Your task to perform on an android device: Open Chrome and go to the settings page Image 0: 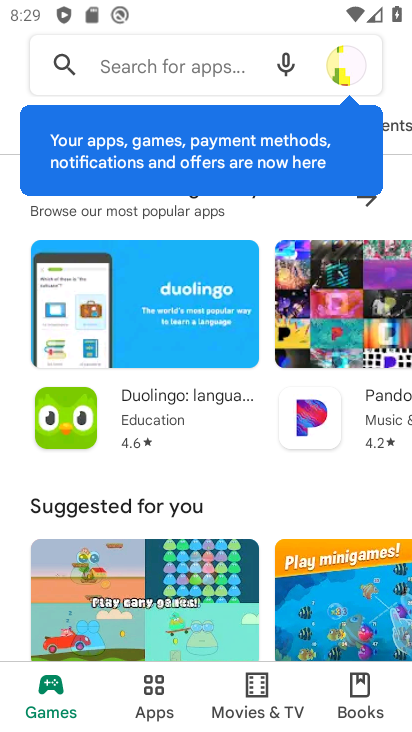
Step 0: press back button
Your task to perform on an android device: Open Chrome and go to the settings page Image 1: 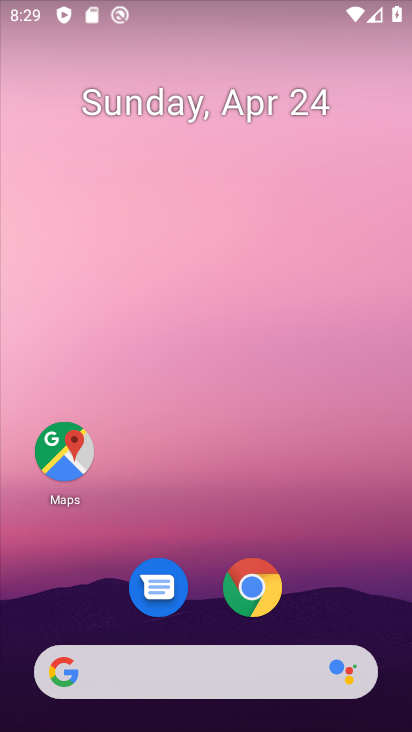
Step 1: click (237, 581)
Your task to perform on an android device: Open Chrome and go to the settings page Image 2: 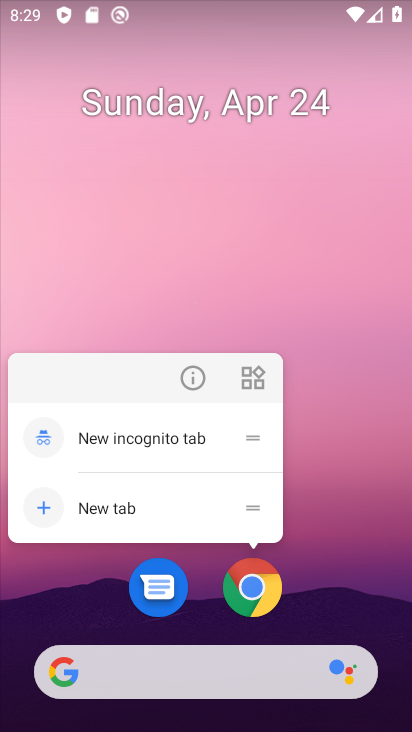
Step 2: click (259, 583)
Your task to perform on an android device: Open Chrome and go to the settings page Image 3: 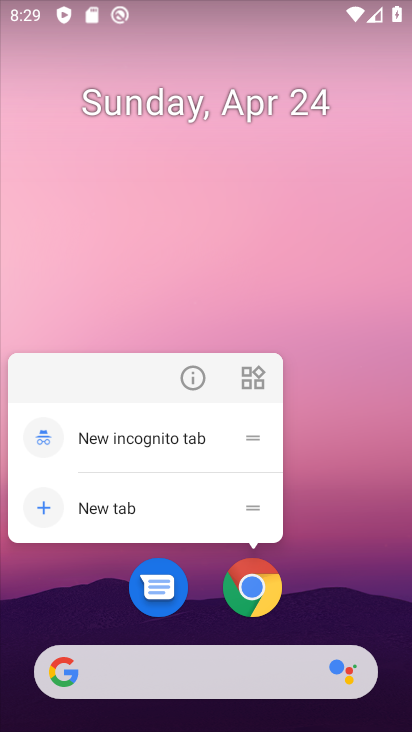
Step 3: click (254, 587)
Your task to perform on an android device: Open Chrome and go to the settings page Image 4: 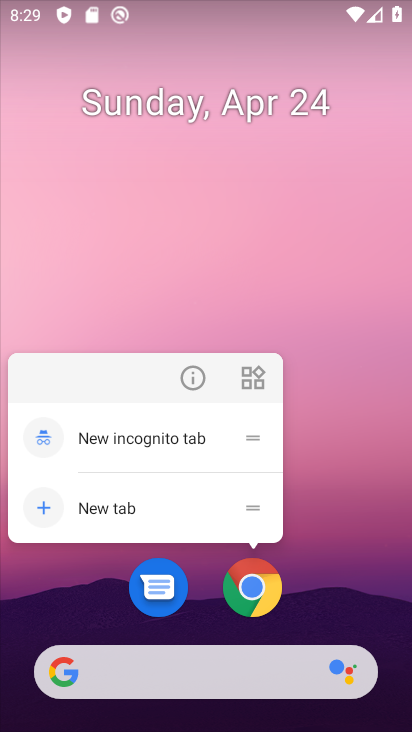
Step 4: click (254, 590)
Your task to perform on an android device: Open Chrome and go to the settings page Image 5: 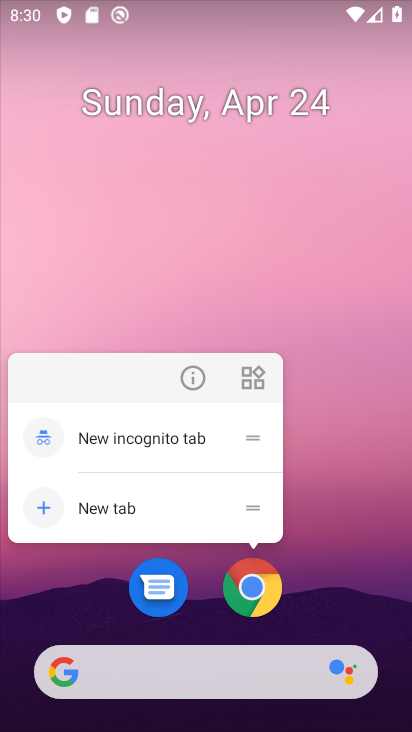
Step 5: click (253, 598)
Your task to perform on an android device: Open Chrome and go to the settings page Image 6: 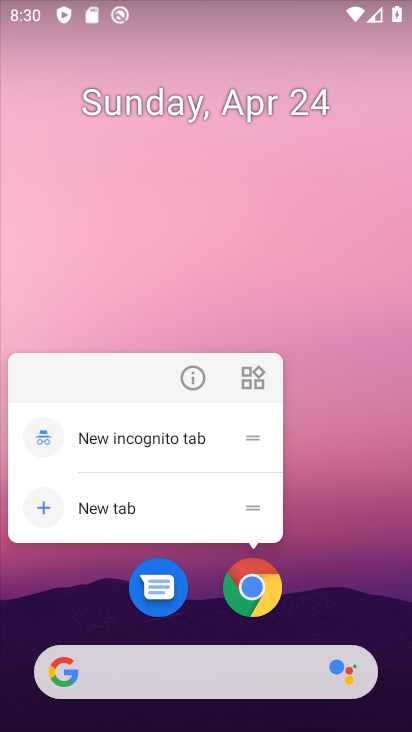
Step 6: click (255, 587)
Your task to perform on an android device: Open Chrome and go to the settings page Image 7: 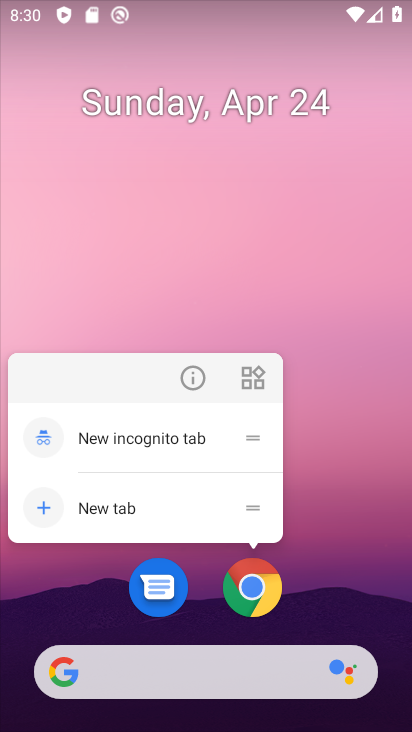
Step 7: click (245, 588)
Your task to perform on an android device: Open Chrome and go to the settings page Image 8: 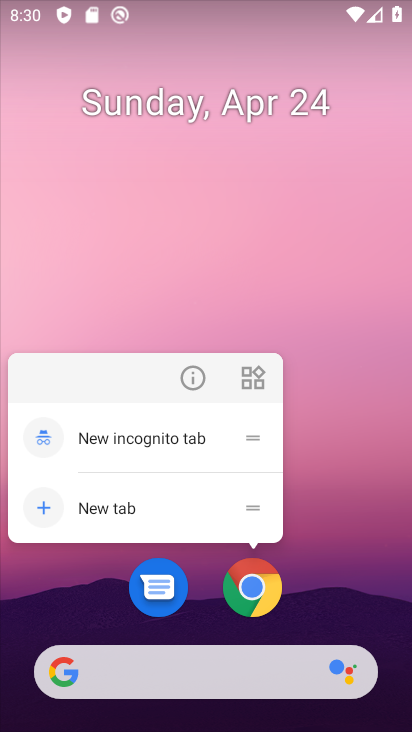
Step 8: click (270, 582)
Your task to perform on an android device: Open Chrome and go to the settings page Image 9: 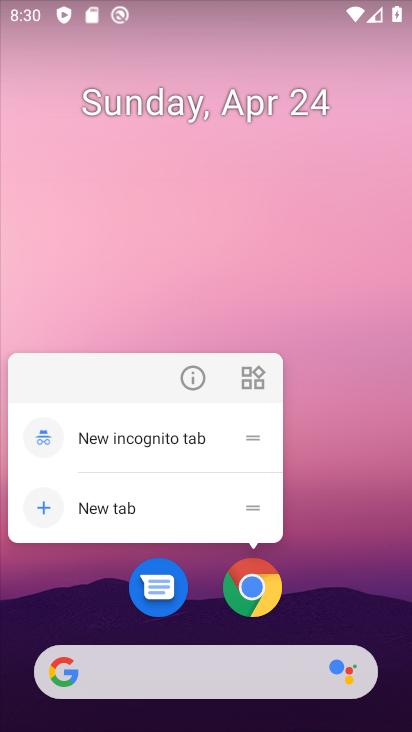
Step 9: click (256, 588)
Your task to perform on an android device: Open Chrome and go to the settings page Image 10: 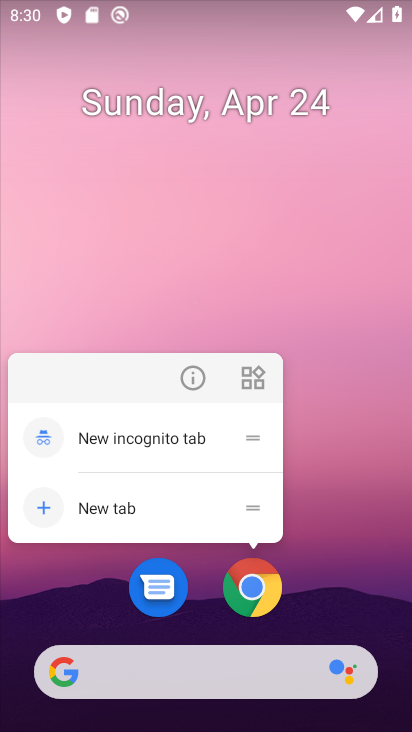
Step 10: click (256, 587)
Your task to perform on an android device: Open Chrome and go to the settings page Image 11: 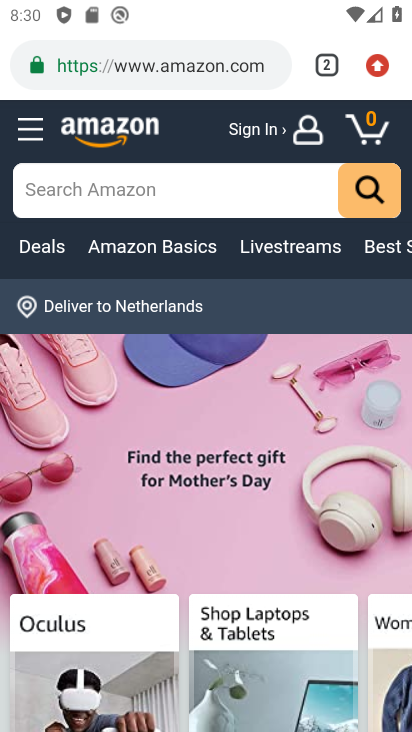
Step 11: task complete